Your task to perform on an android device: Search for alienware area 51 on costco.com, select the first entry, add it to the cart, then select checkout. Image 0: 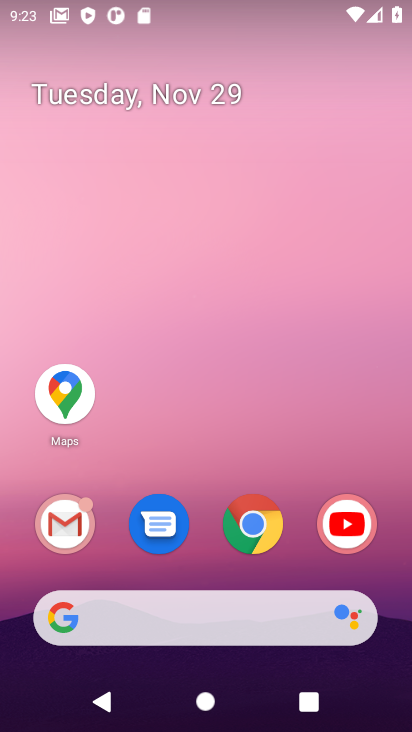
Step 0: click (249, 529)
Your task to perform on an android device: Search for alienware area 51 on costco.com, select the first entry, add it to the cart, then select checkout. Image 1: 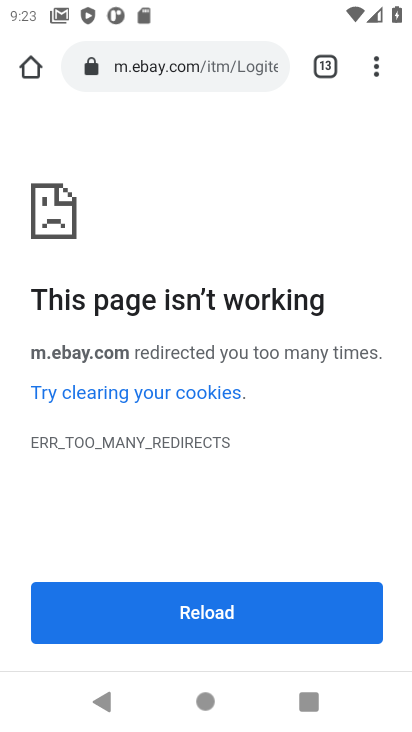
Step 1: click (175, 65)
Your task to perform on an android device: Search for alienware area 51 on costco.com, select the first entry, add it to the cart, then select checkout. Image 2: 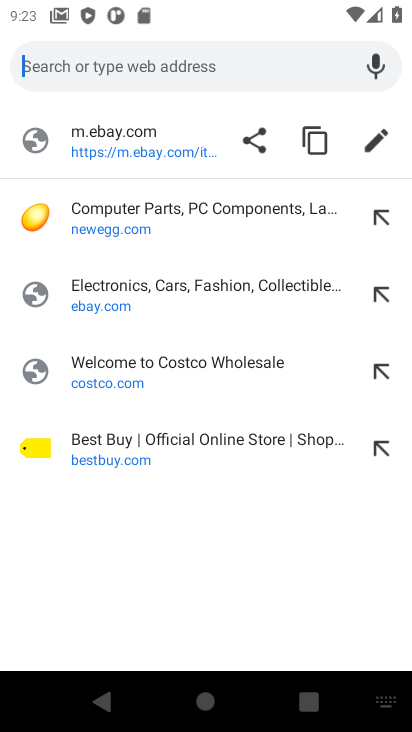
Step 2: click (109, 374)
Your task to perform on an android device: Search for alienware area 51 on costco.com, select the first entry, add it to the cart, then select checkout. Image 3: 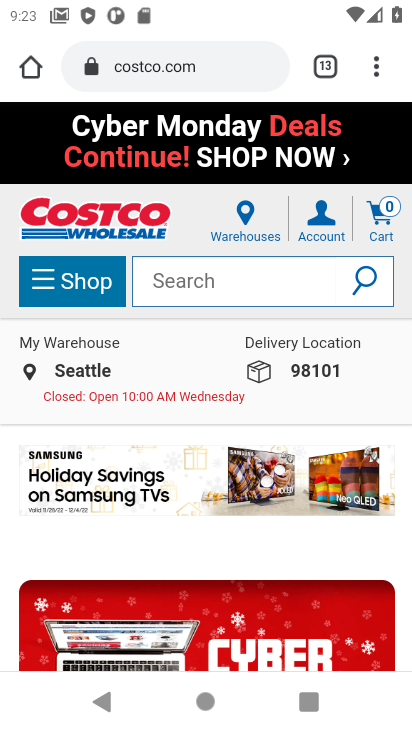
Step 3: click (166, 283)
Your task to perform on an android device: Search for alienware area 51 on costco.com, select the first entry, add it to the cart, then select checkout. Image 4: 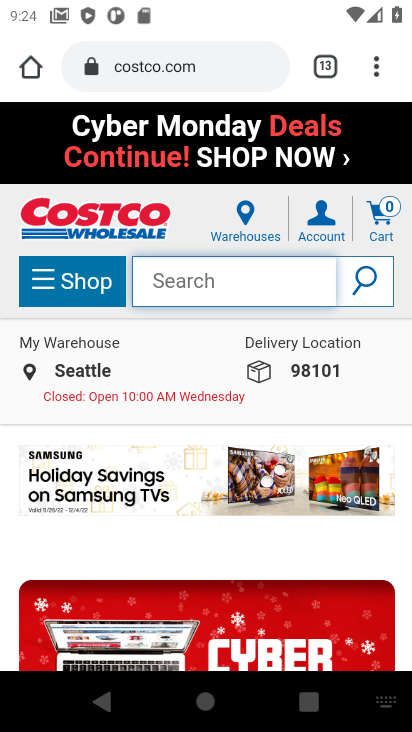
Step 4: type "alienware area 51 "
Your task to perform on an android device: Search for alienware area 51 on costco.com, select the first entry, add it to the cart, then select checkout. Image 5: 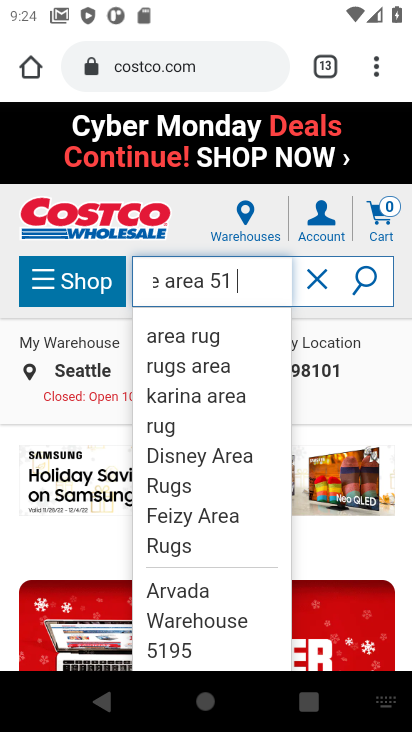
Step 5: click (359, 277)
Your task to perform on an android device: Search for alienware area 51 on costco.com, select the first entry, add it to the cart, then select checkout. Image 6: 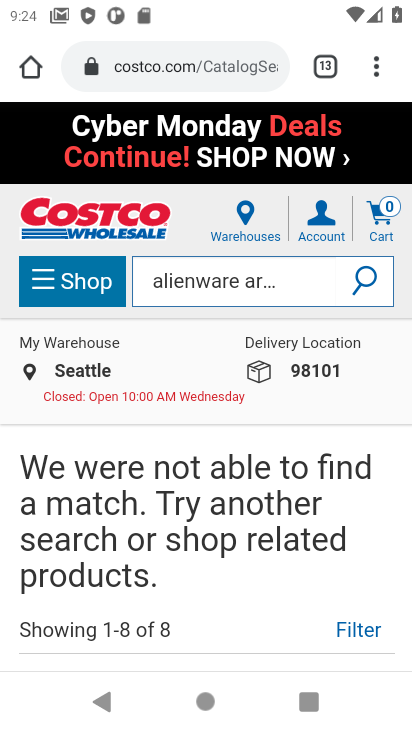
Step 6: task complete